Your task to perform on an android device: turn smart compose on in the gmail app Image 0: 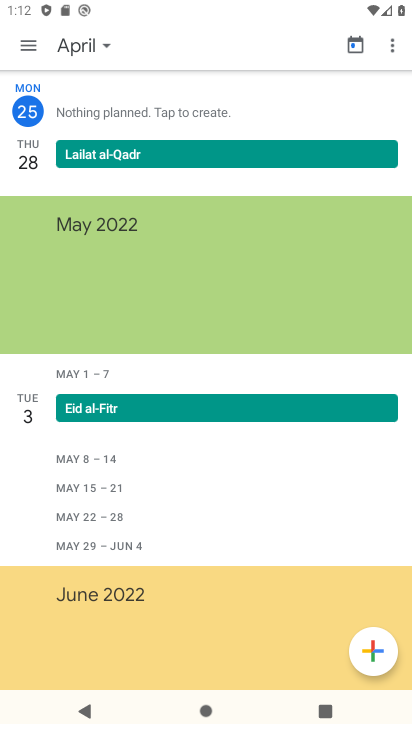
Step 0: press home button
Your task to perform on an android device: turn smart compose on in the gmail app Image 1: 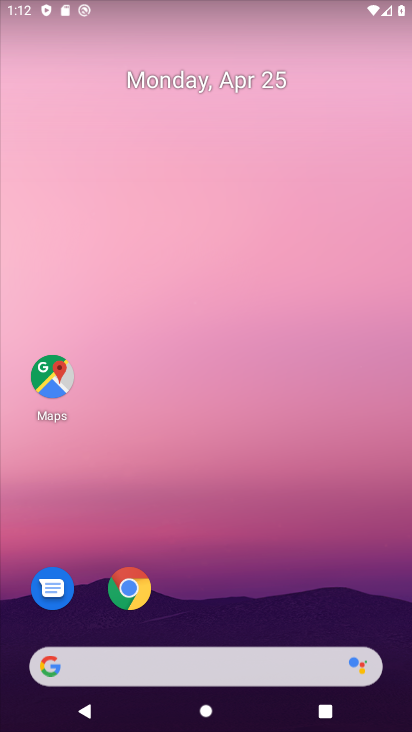
Step 1: drag from (253, 562) to (299, 159)
Your task to perform on an android device: turn smart compose on in the gmail app Image 2: 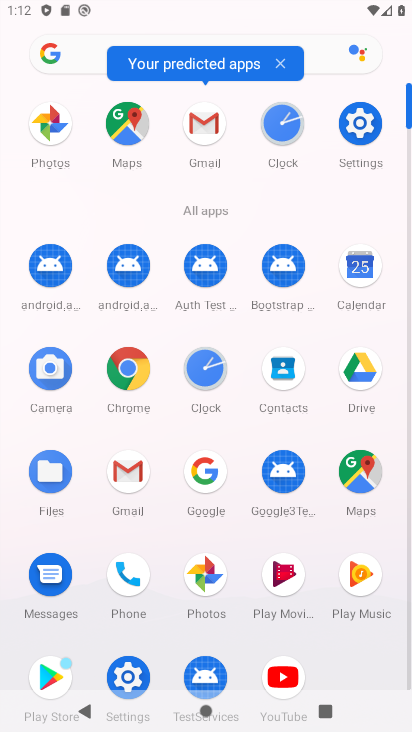
Step 2: click (207, 150)
Your task to perform on an android device: turn smart compose on in the gmail app Image 3: 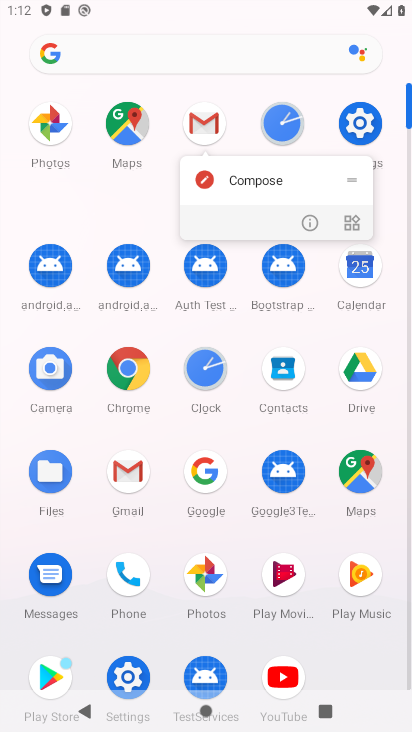
Step 3: click (309, 229)
Your task to perform on an android device: turn smart compose on in the gmail app Image 4: 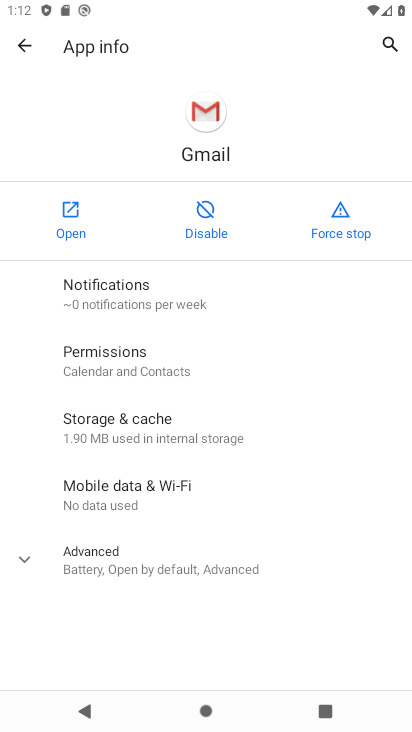
Step 4: click (98, 225)
Your task to perform on an android device: turn smart compose on in the gmail app Image 5: 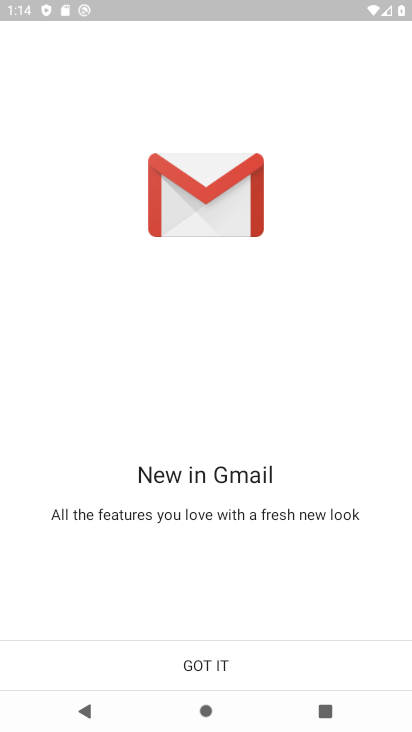
Step 5: click (227, 664)
Your task to perform on an android device: turn smart compose on in the gmail app Image 6: 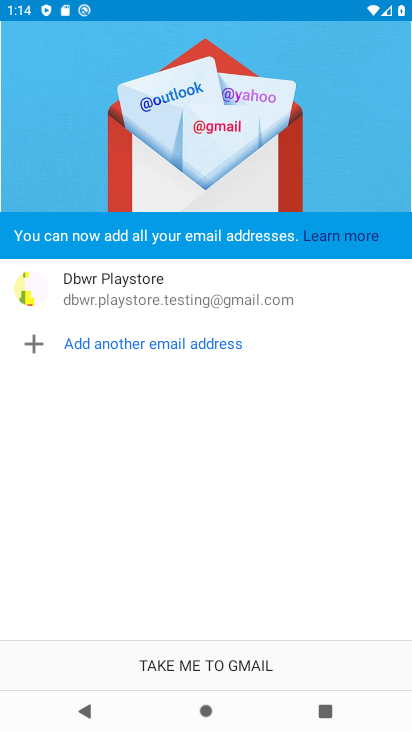
Step 6: click (224, 663)
Your task to perform on an android device: turn smart compose on in the gmail app Image 7: 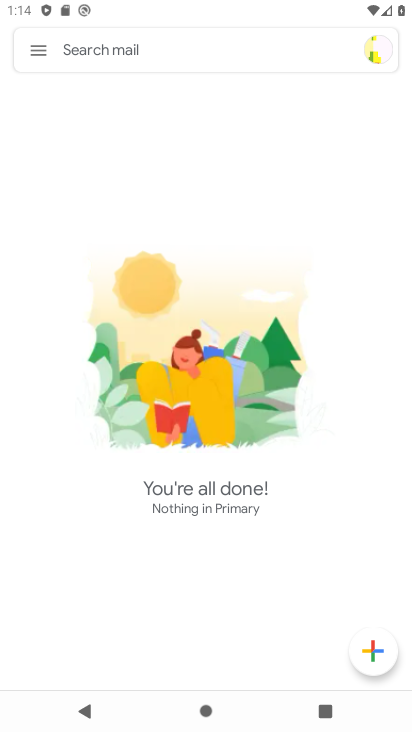
Step 7: click (37, 52)
Your task to perform on an android device: turn smart compose on in the gmail app Image 8: 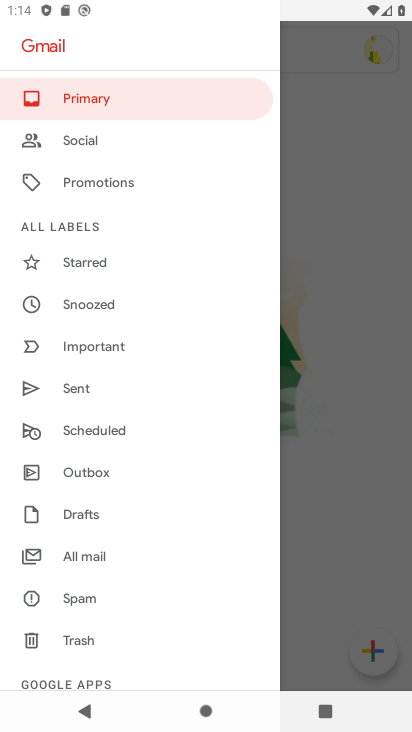
Step 8: drag from (100, 568) to (127, 195)
Your task to perform on an android device: turn smart compose on in the gmail app Image 9: 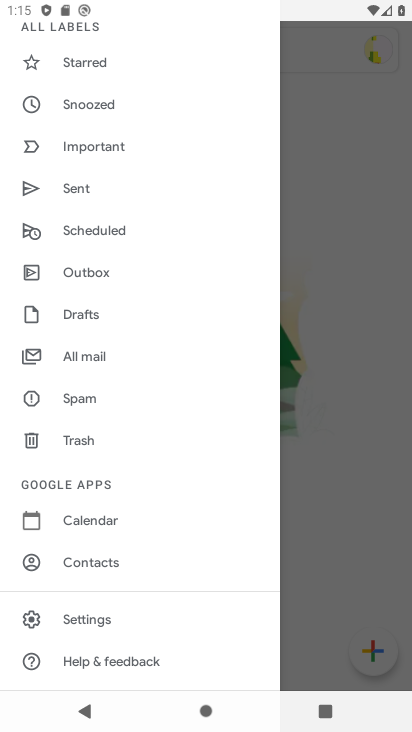
Step 9: click (104, 621)
Your task to perform on an android device: turn smart compose on in the gmail app Image 10: 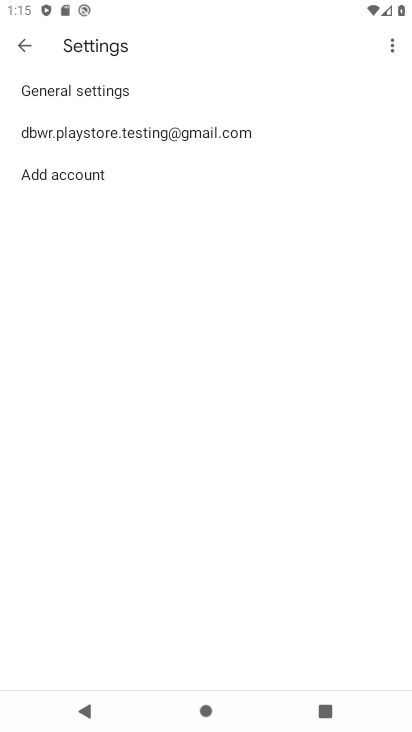
Step 10: click (183, 136)
Your task to perform on an android device: turn smart compose on in the gmail app Image 11: 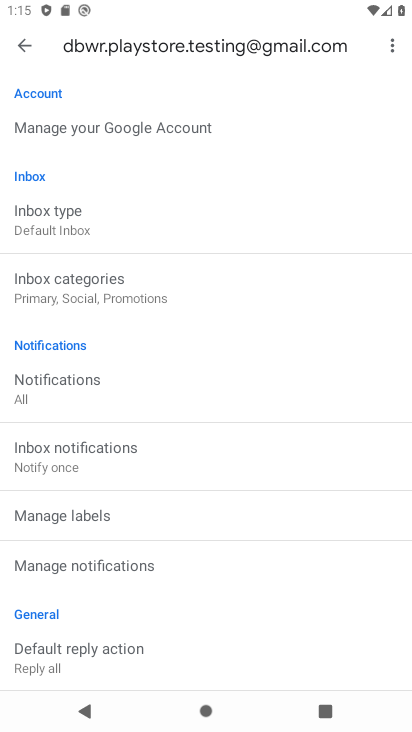
Step 11: task complete